Your task to perform on an android device: Search for "logitech g903" on amazon, select the first entry, and add it to the cart. Image 0: 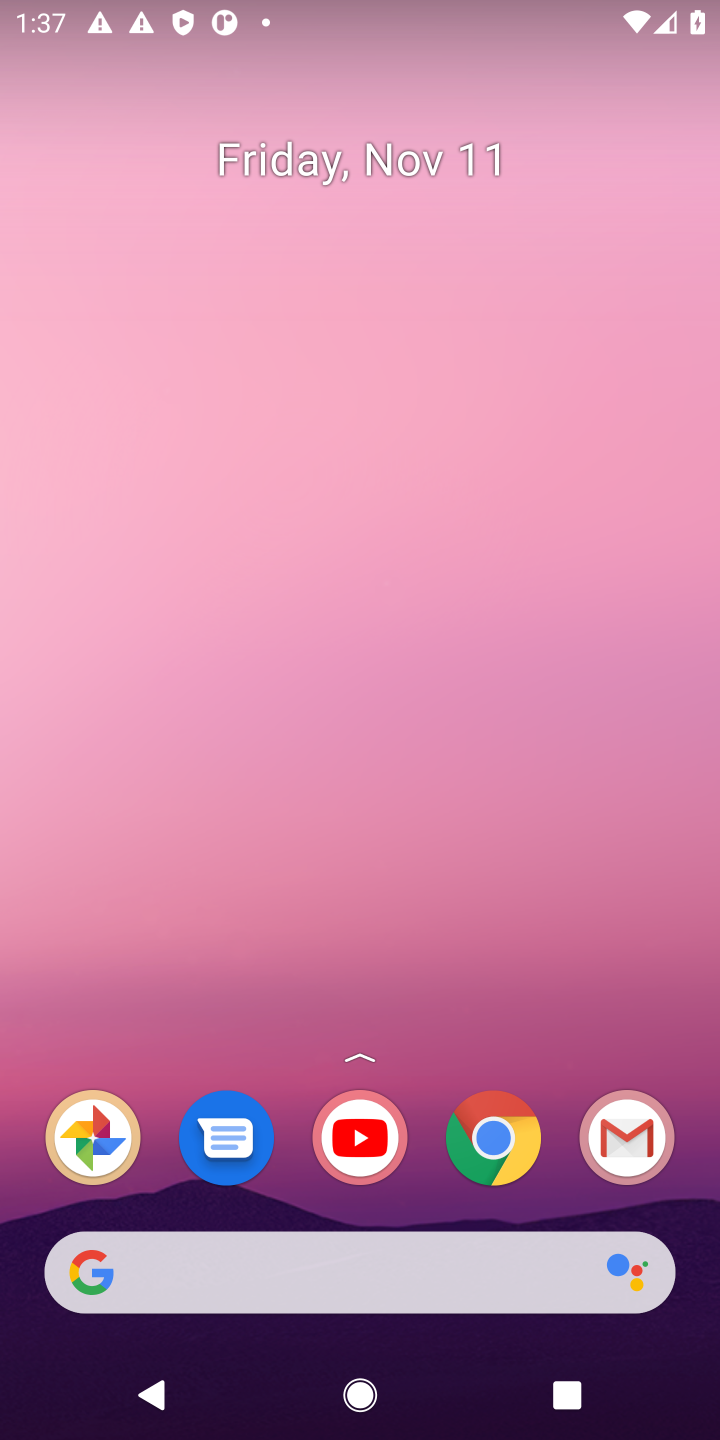
Step 0: click (479, 1135)
Your task to perform on an android device: Search for "logitech g903" on amazon, select the first entry, and add it to the cart. Image 1: 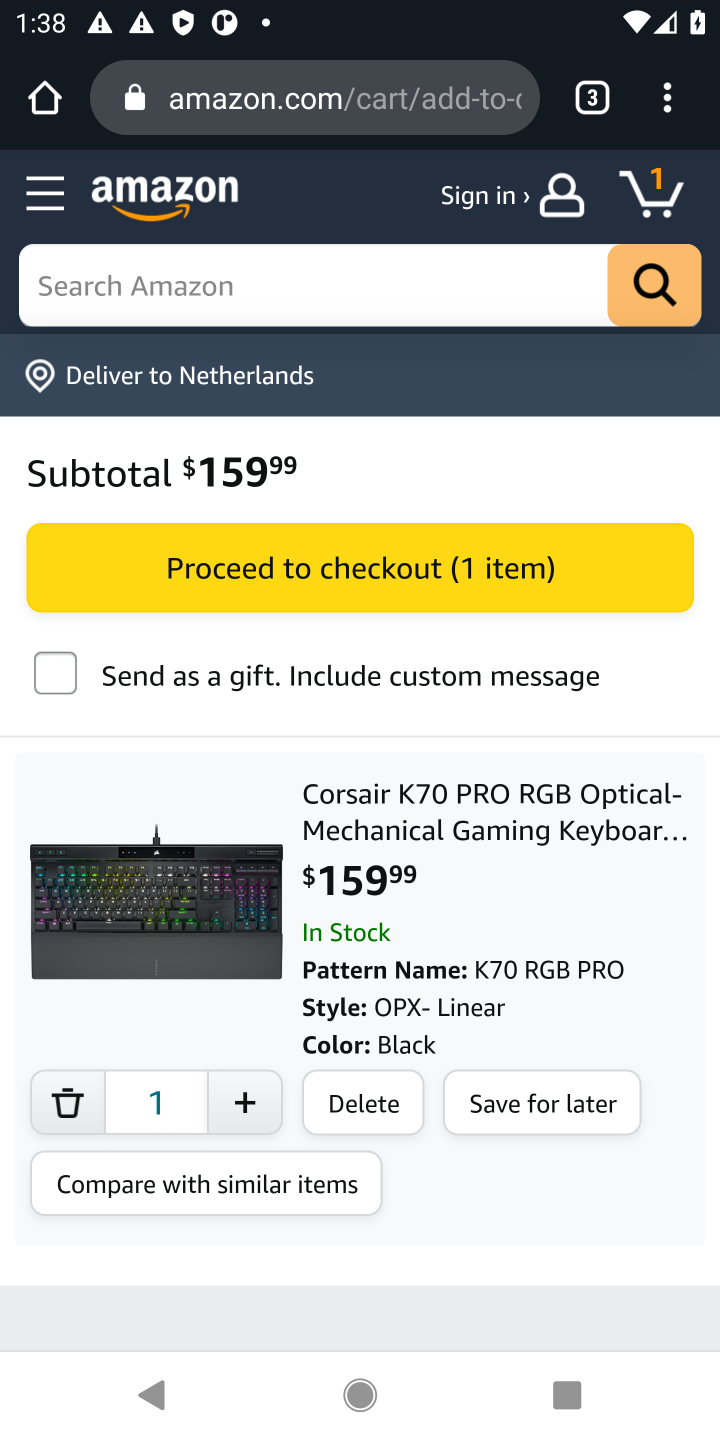
Step 1: click (275, 287)
Your task to perform on an android device: Search for "logitech g903" on amazon, select the first entry, and add it to the cart. Image 2: 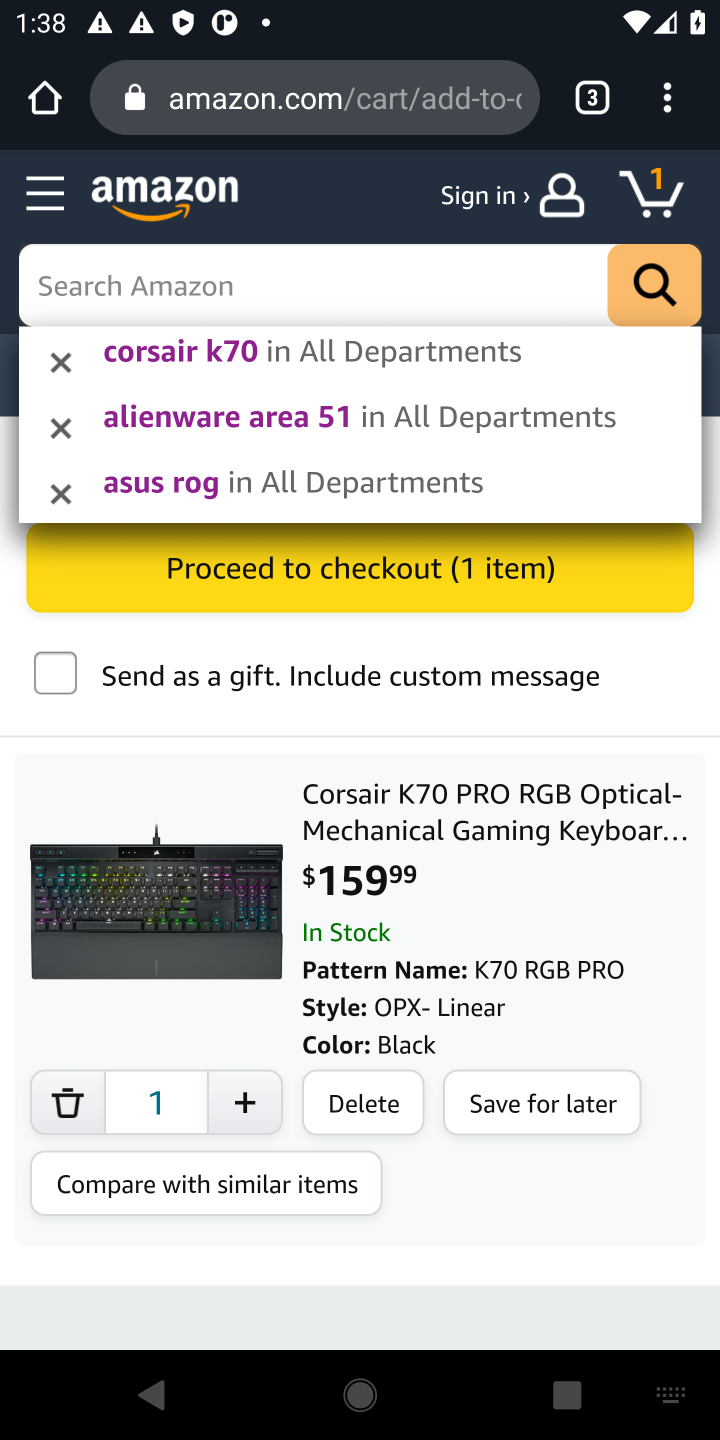
Step 2: type "logitech g903"
Your task to perform on an android device: Search for "logitech g903" on amazon, select the first entry, and add it to the cart. Image 3: 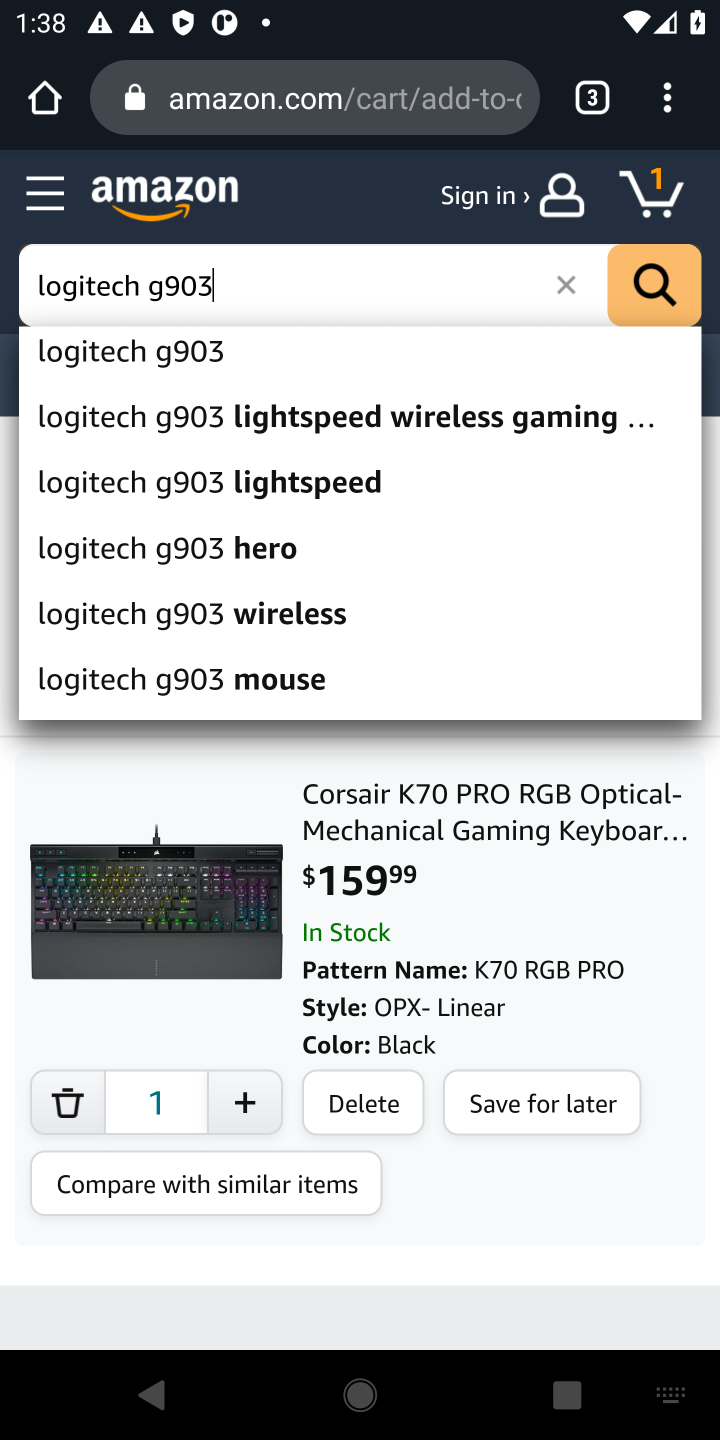
Step 3: click (182, 339)
Your task to perform on an android device: Search for "logitech g903" on amazon, select the first entry, and add it to the cart. Image 4: 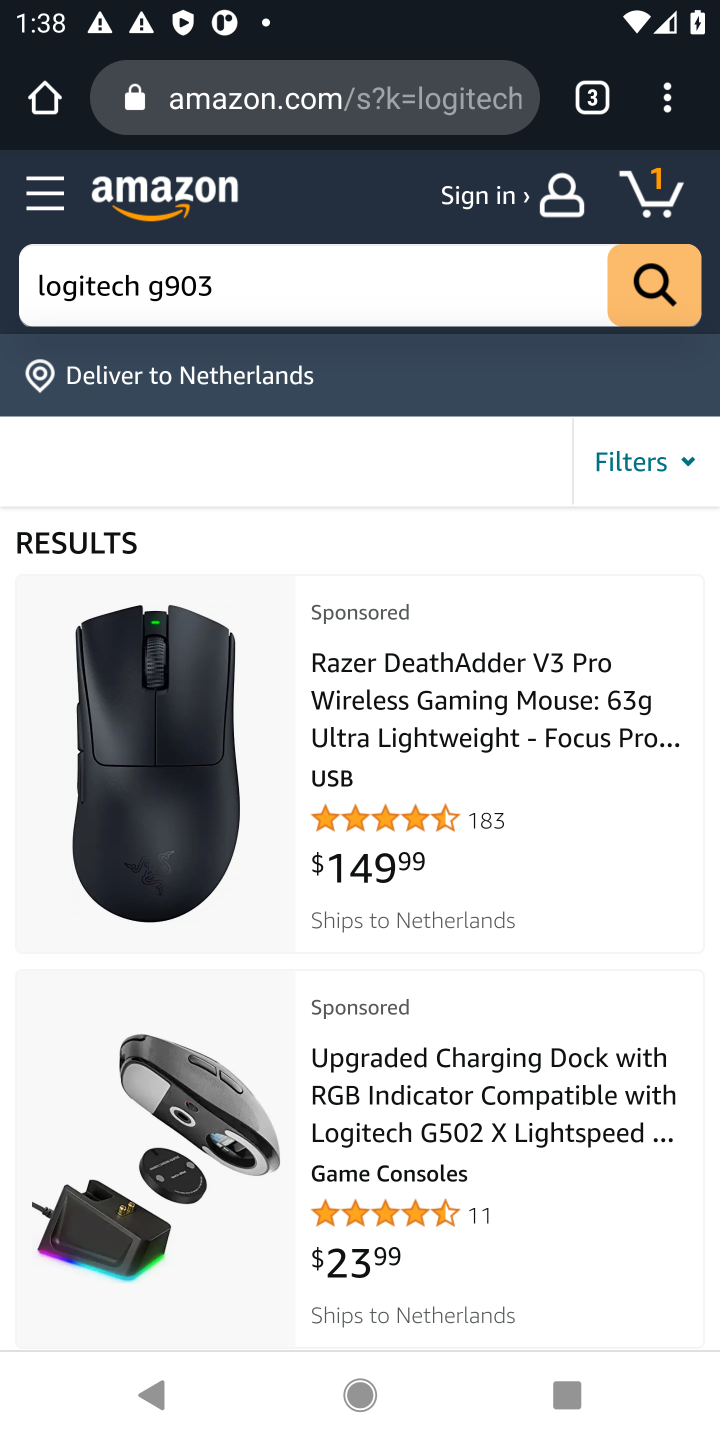
Step 4: click (644, 287)
Your task to perform on an android device: Search for "logitech g903" on amazon, select the first entry, and add it to the cart. Image 5: 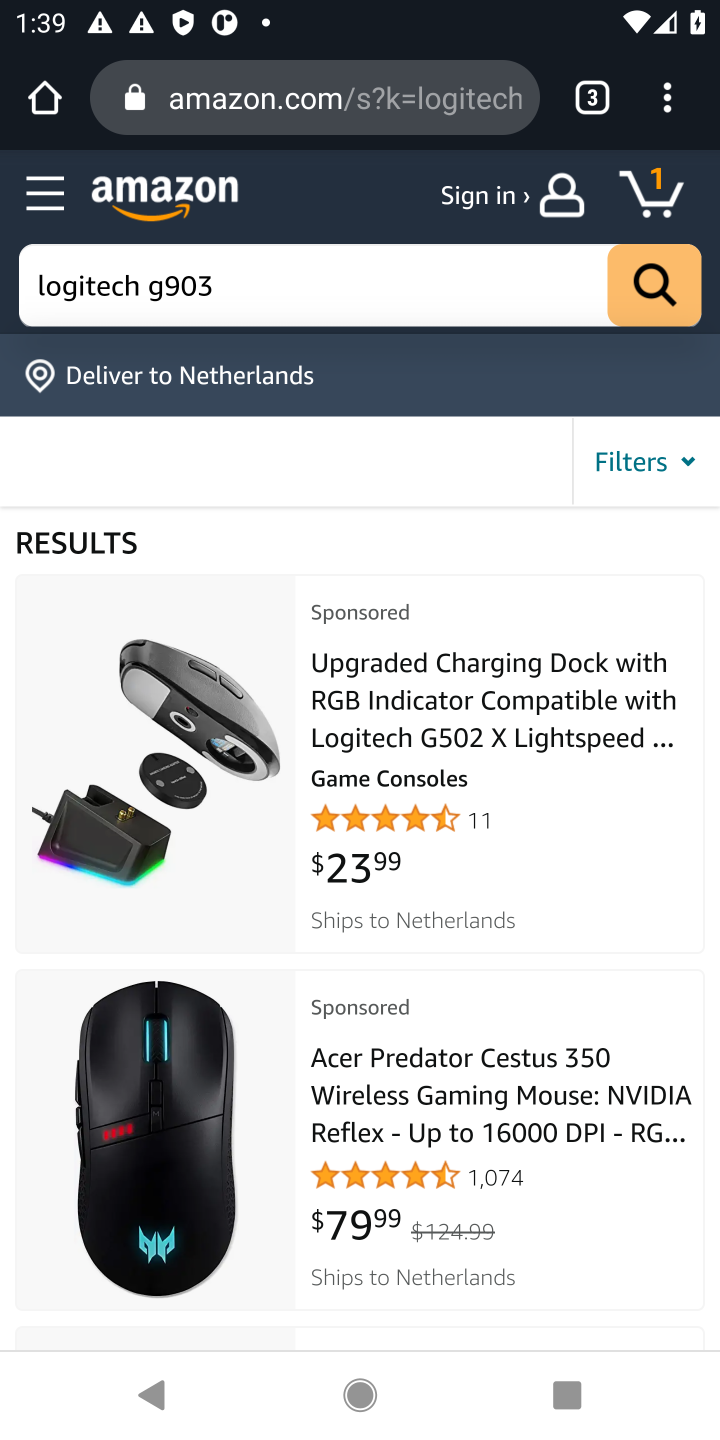
Step 5: click (557, 498)
Your task to perform on an android device: Search for "logitech g903" on amazon, select the first entry, and add it to the cart. Image 6: 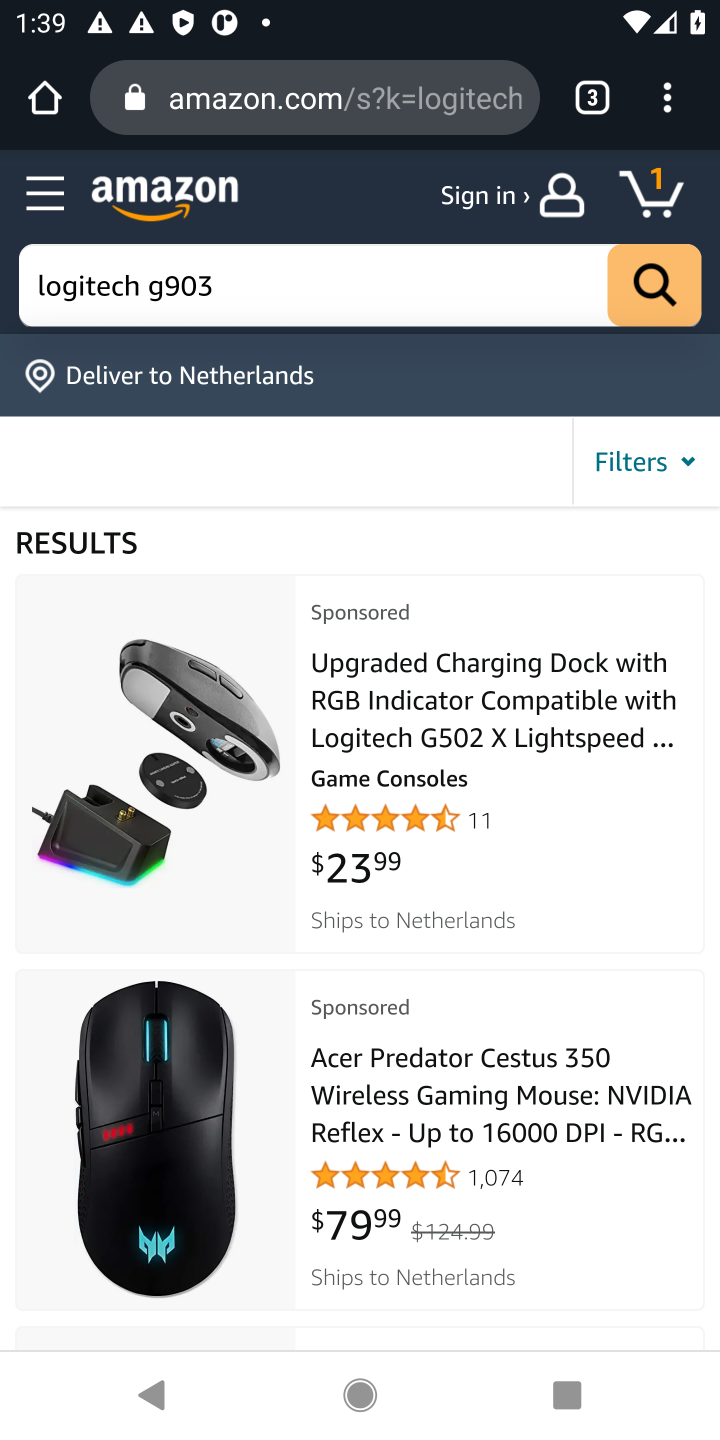
Step 6: drag from (456, 998) to (508, 458)
Your task to perform on an android device: Search for "logitech g903" on amazon, select the first entry, and add it to the cart. Image 7: 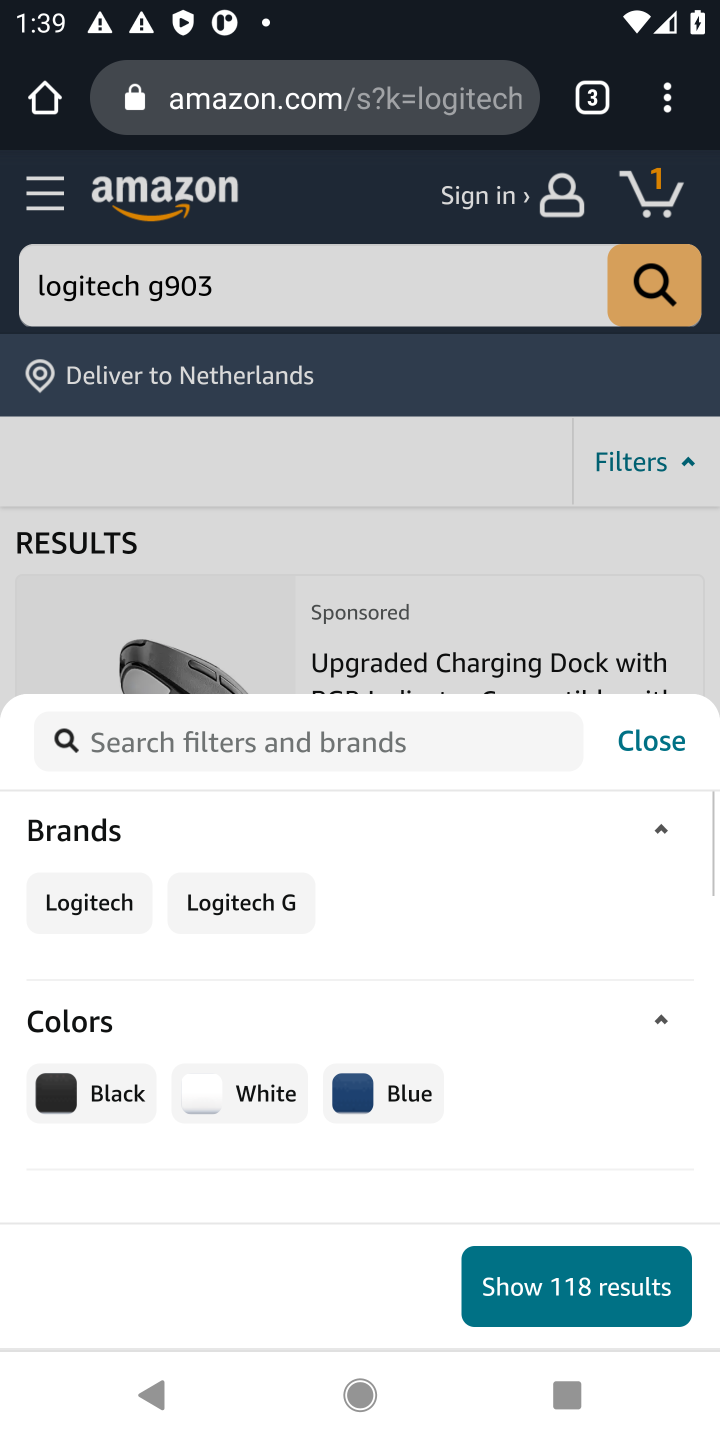
Step 7: drag from (573, 1073) to (623, 656)
Your task to perform on an android device: Search for "logitech g903" on amazon, select the first entry, and add it to the cart. Image 8: 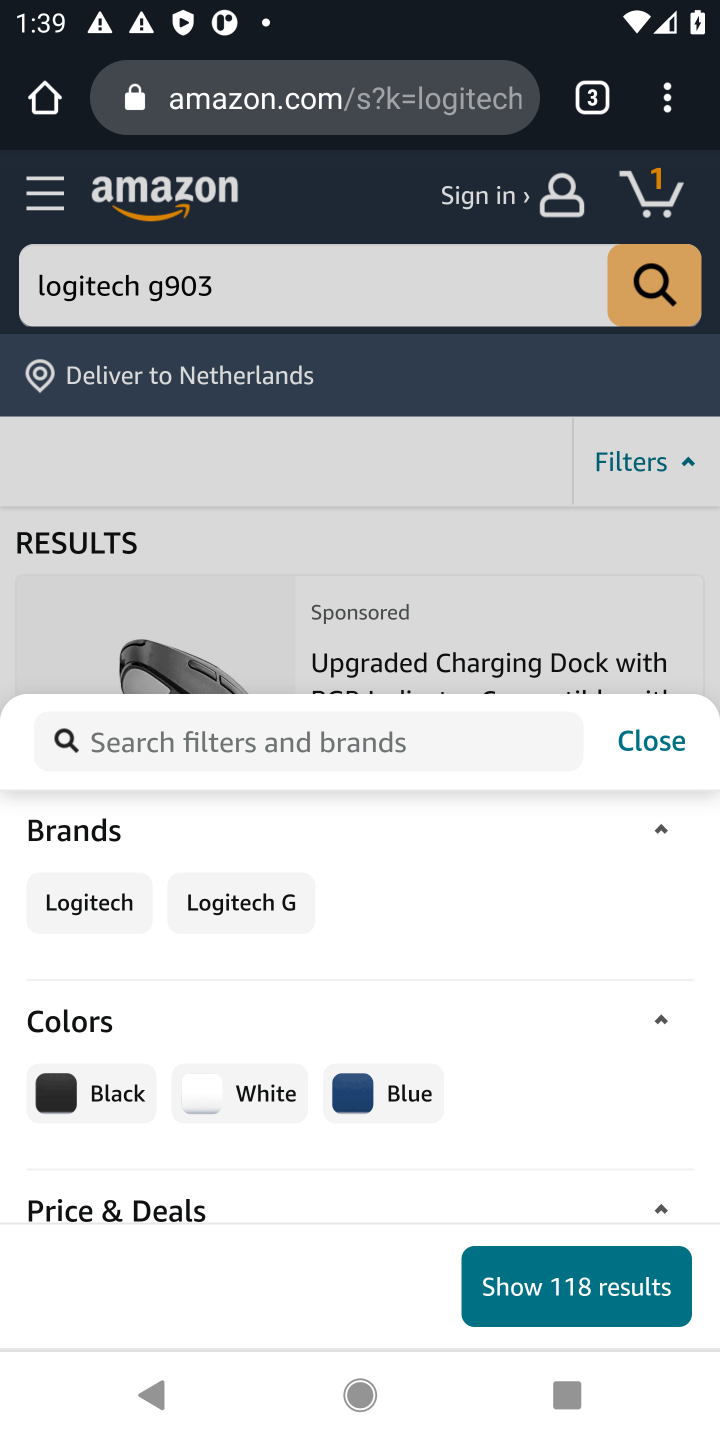
Step 8: click (531, 597)
Your task to perform on an android device: Search for "logitech g903" on amazon, select the first entry, and add it to the cart. Image 9: 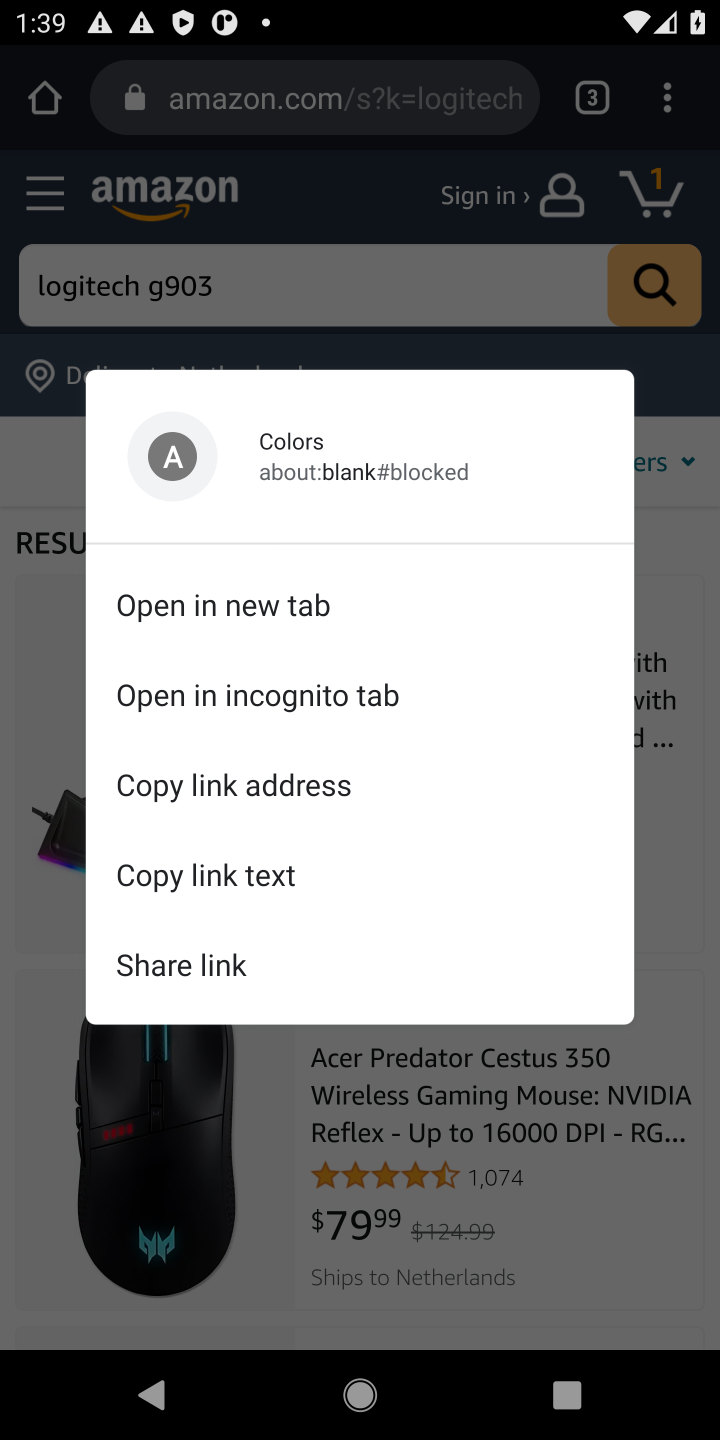
Step 9: click (459, 1080)
Your task to perform on an android device: Search for "logitech g903" on amazon, select the first entry, and add it to the cart. Image 10: 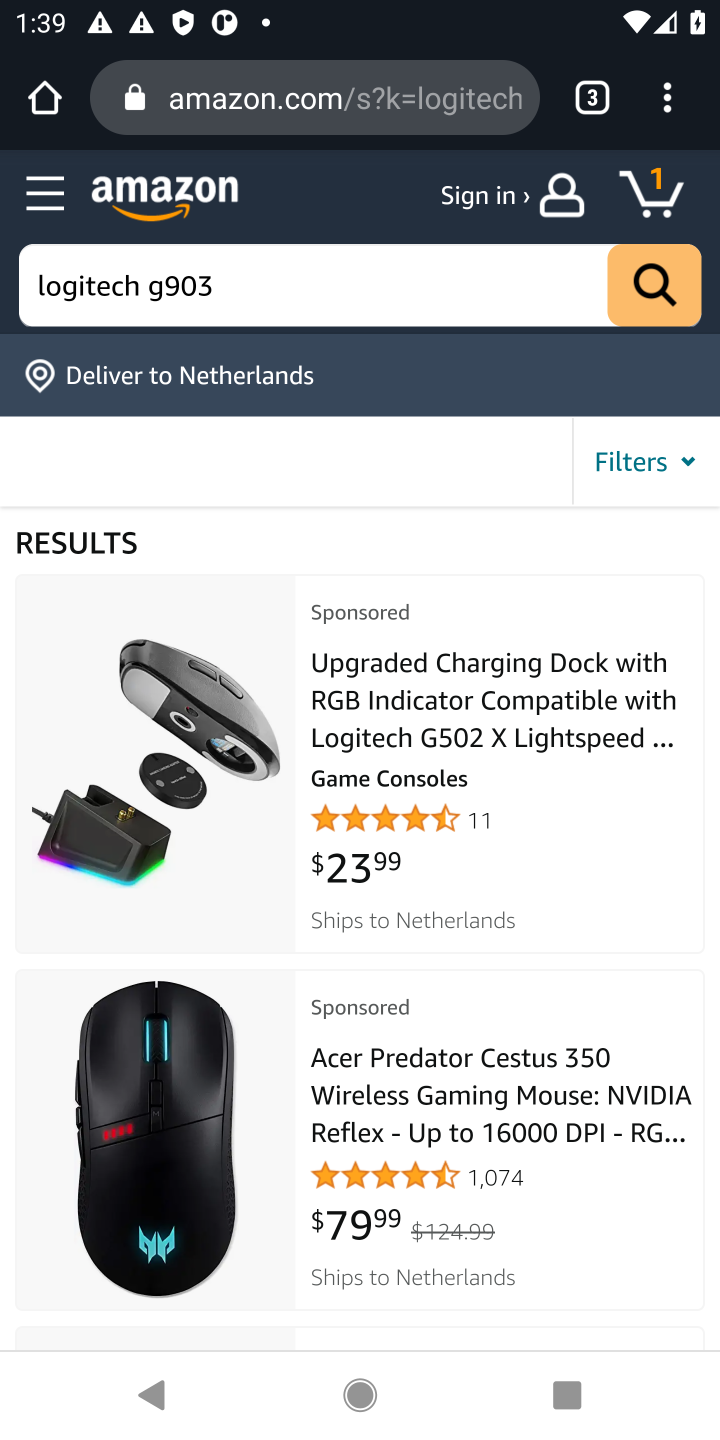
Step 10: drag from (459, 1080) to (564, 521)
Your task to perform on an android device: Search for "logitech g903" on amazon, select the first entry, and add it to the cart. Image 11: 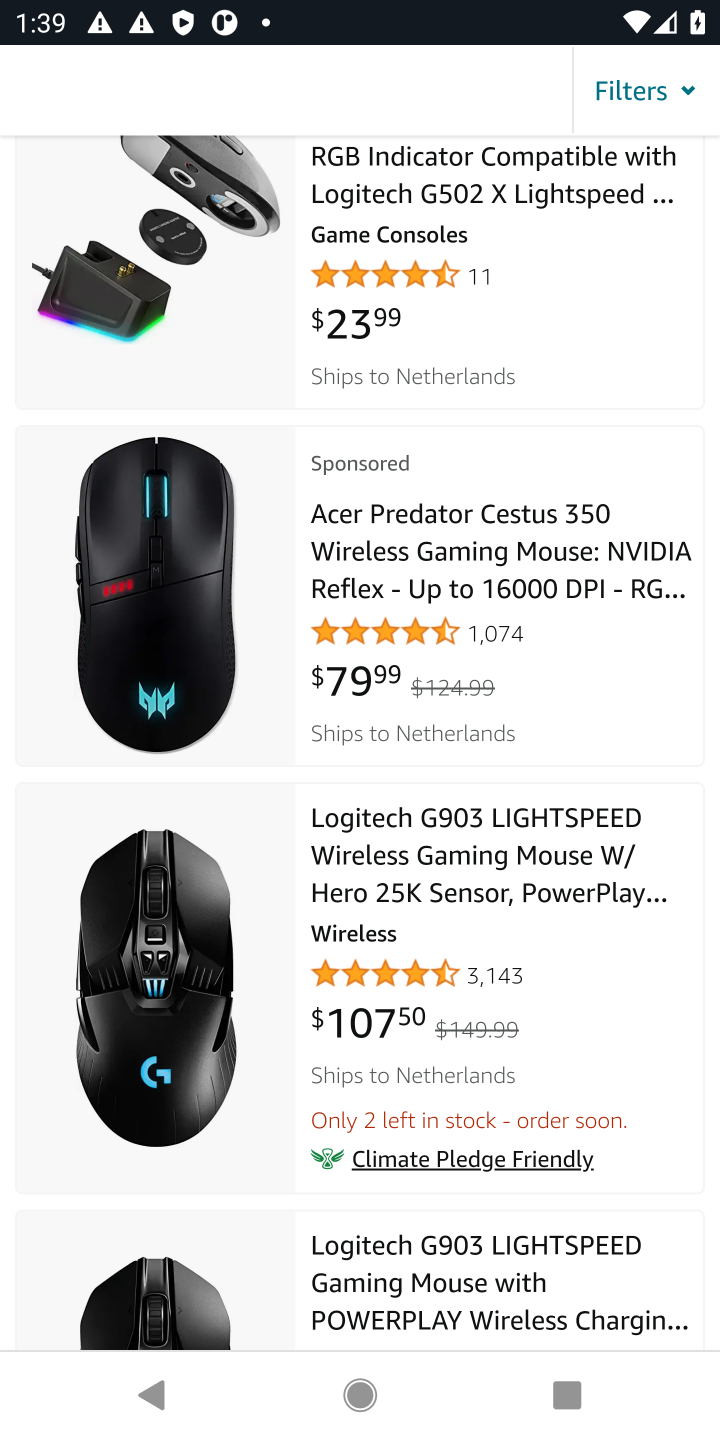
Step 11: click (480, 857)
Your task to perform on an android device: Search for "logitech g903" on amazon, select the first entry, and add it to the cart. Image 12: 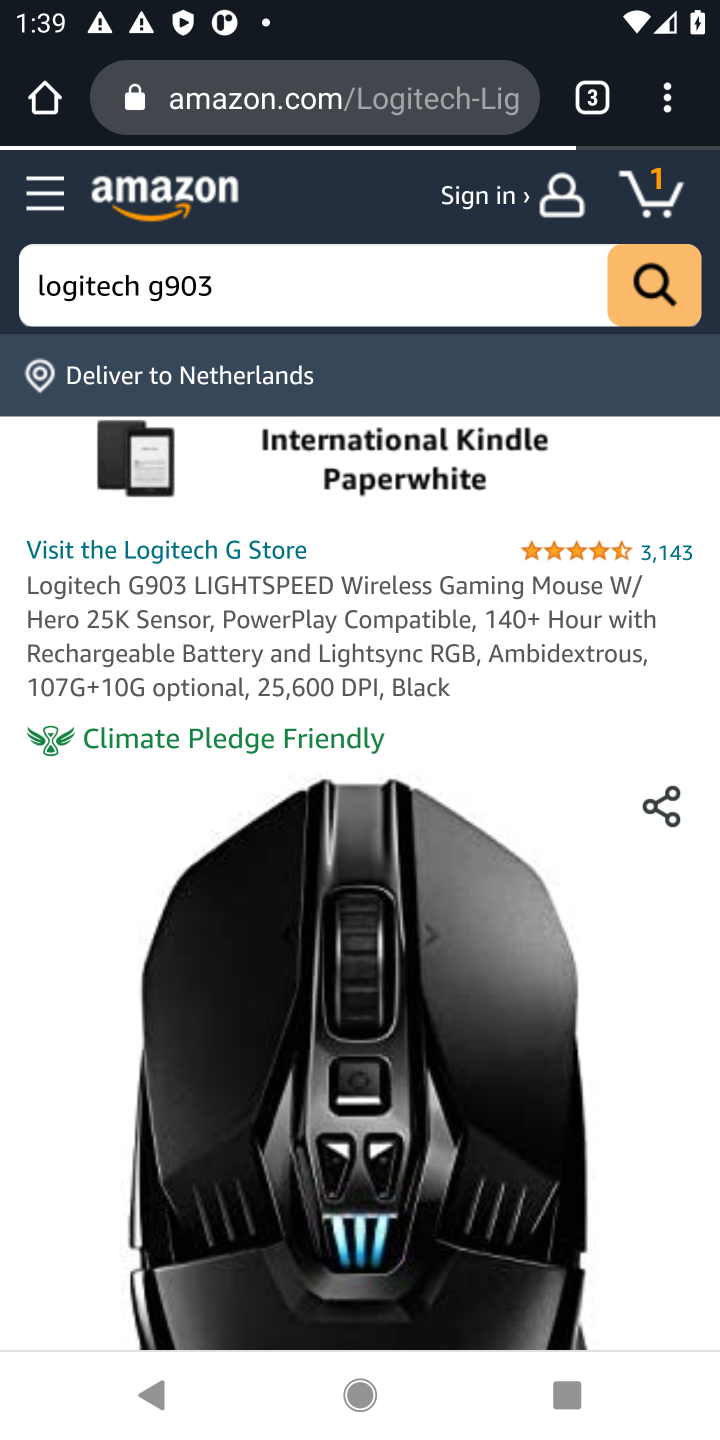
Step 12: drag from (609, 1289) to (617, 442)
Your task to perform on an android device: Search for "logitech g903" on amazon, select the first entry, and add it to the cart. Image 13: 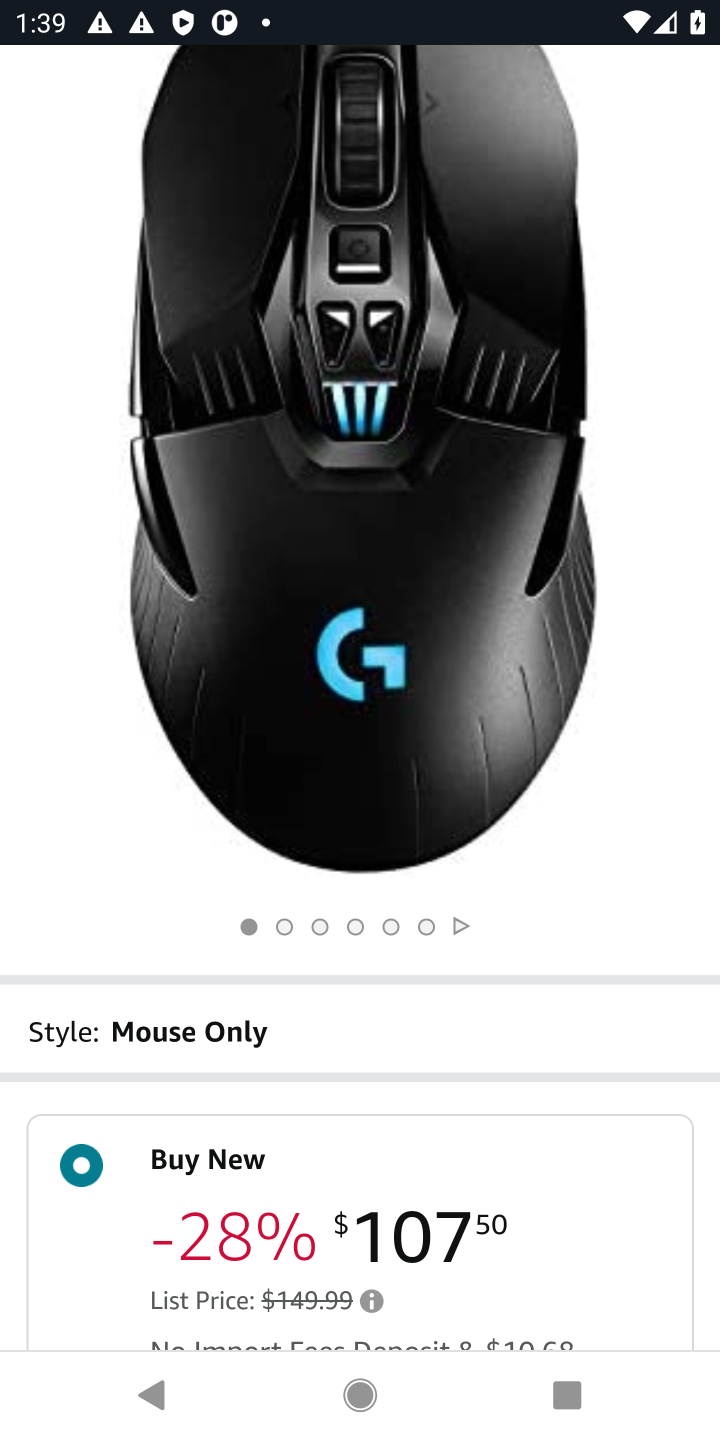
Step 13: drag from (453, 1038) to (567, 96)
Your task to perform on an android device: Search for "logitech g903" on amazon, select the first entry, and add it to the cart. Image 14: 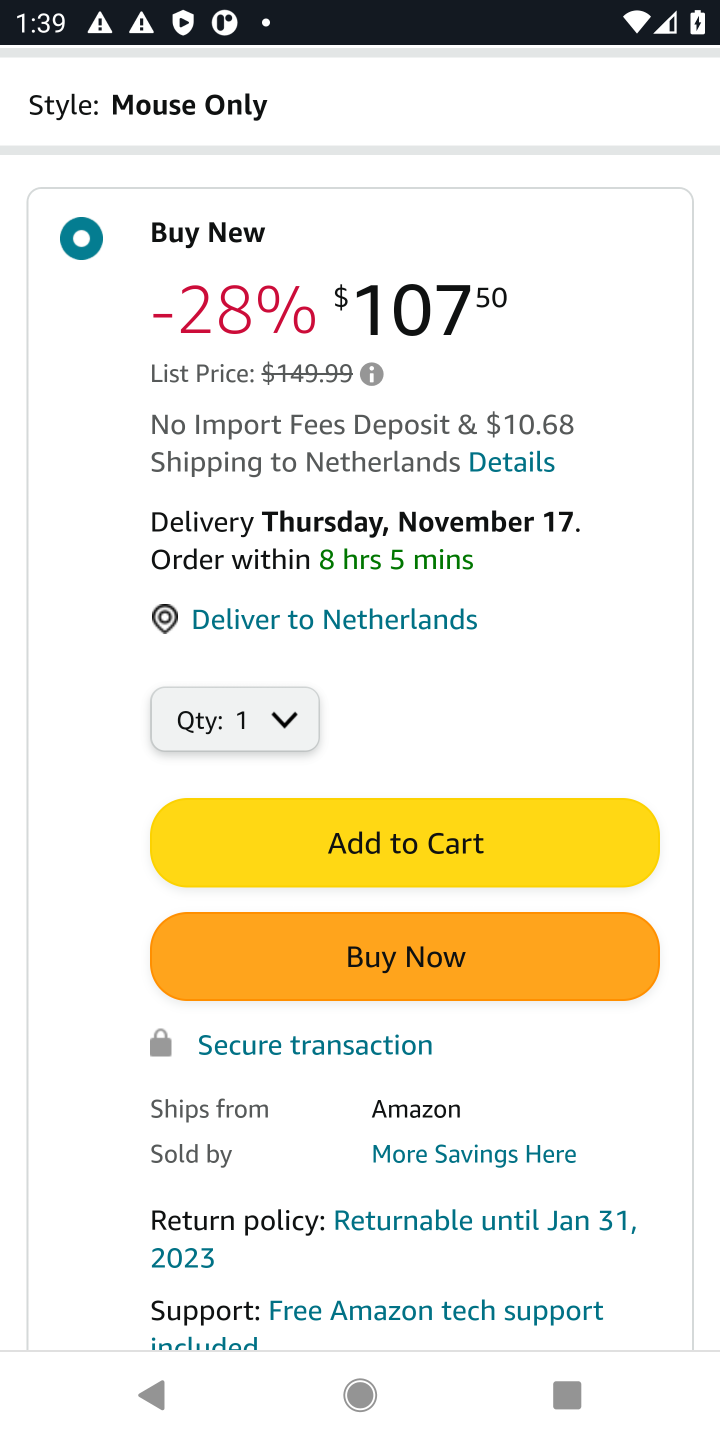
Step 14: click (462, 856)
Your task to perform on an android device: Search for "logitech g903" on amazon, select the first entry, and add it to the cart. Image 15: 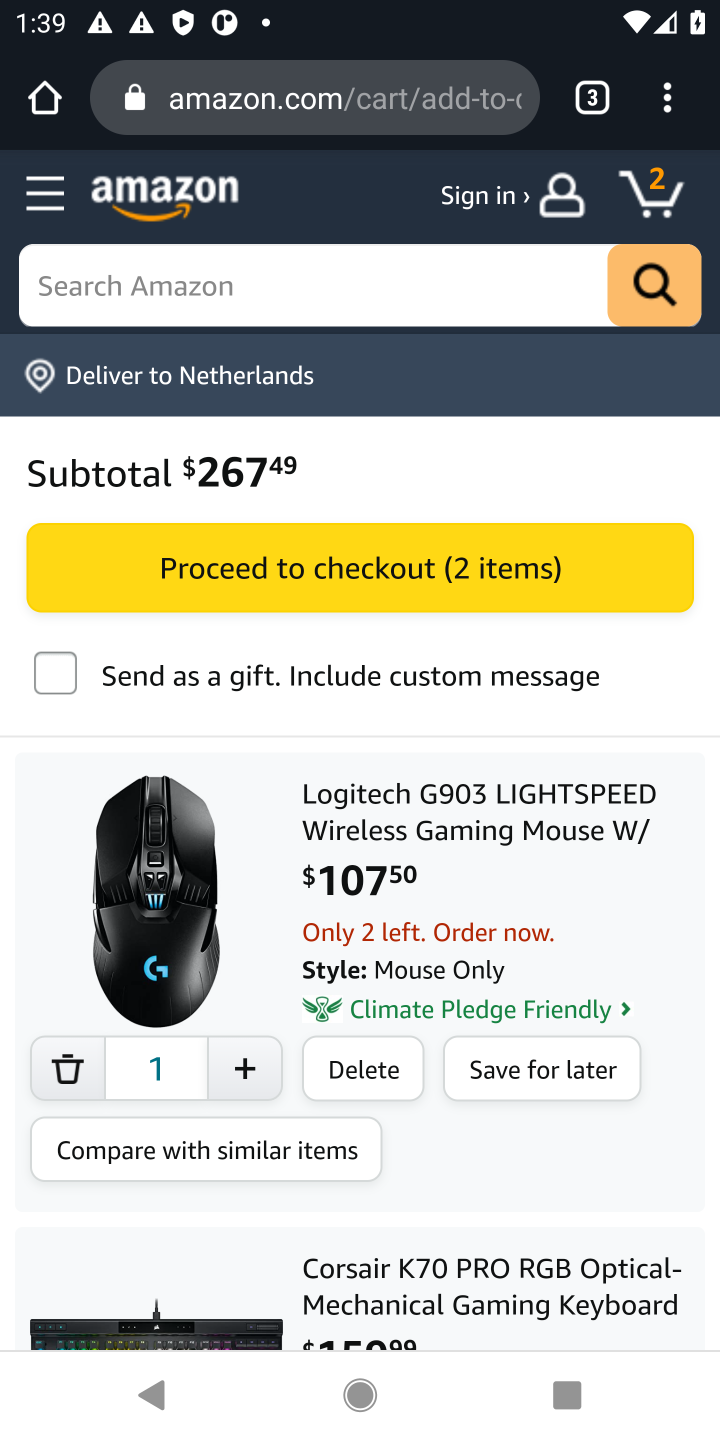
Step 15: task complete